Your task to perform on an android device: change the clock display to analog Image 0: 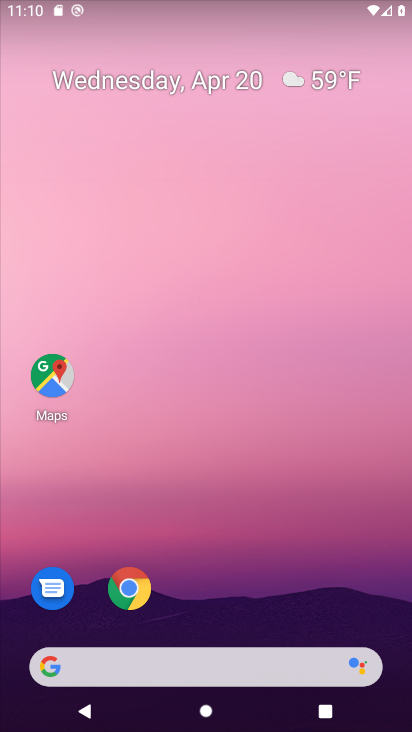
Step 0: drag from (343, 614) to (313, 260)
Your task to perform on an android device: change the clock display to analog Image 1: 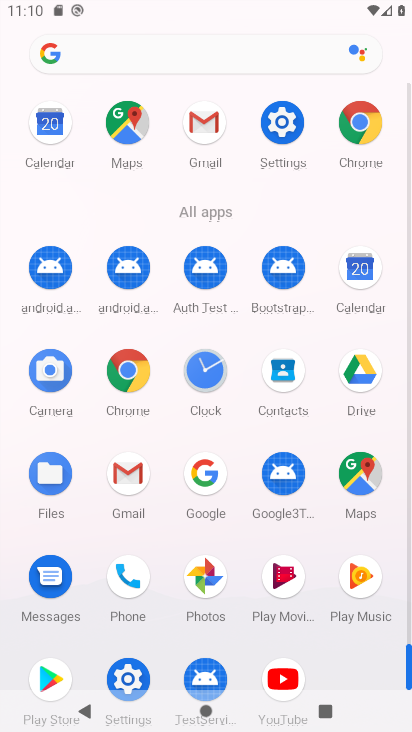
Step 1: click (208, 368)
Your task to perform on an android device: change the clock display to analog Image 2: 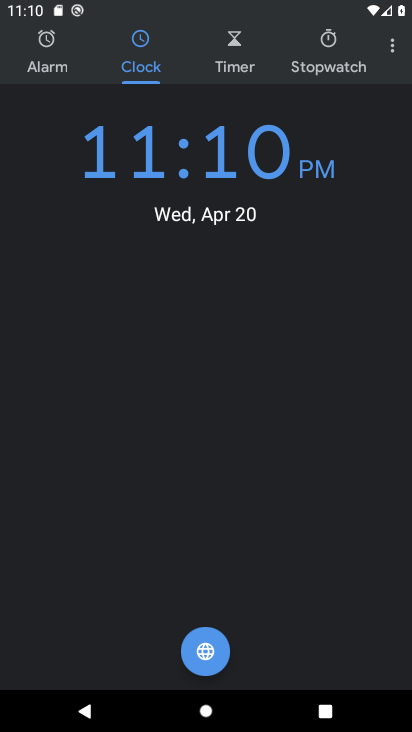
Step 2: click (389, 51)
Your task to perform on an android device: change the clock display to analog Image 3: 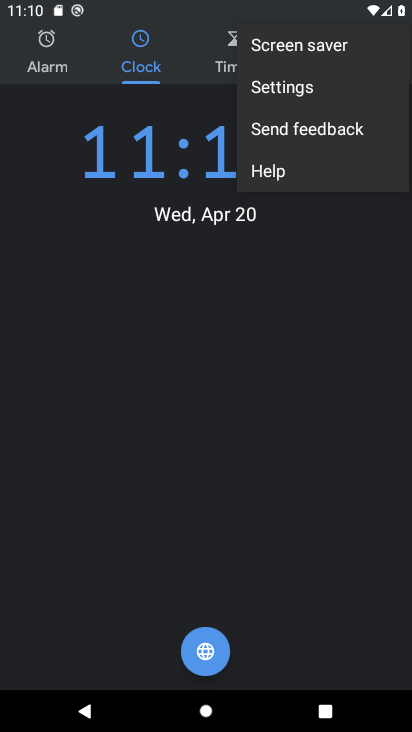
Step 3: click (276, 81)
Your task to perform on an android device: change the clock display to analog Image 4: 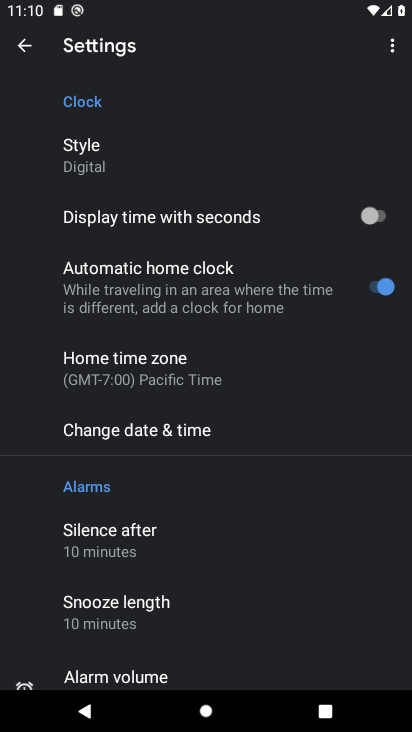
Step 4: click (76, 161)
Your task to perform on an android device: change the clock display to analog Image 5: 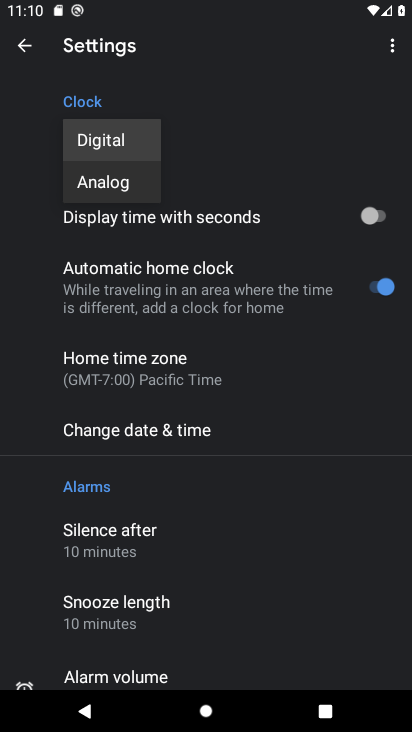
Step 5: click (104, 185)
Your task to perform on an android device: change the clock display to analog Image 6: 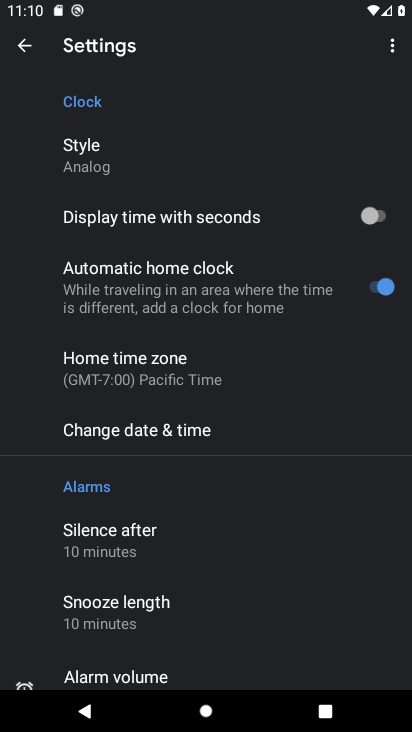
Step 6: task complete